Your task to perform on an android device: Open Youtube and go to "Your channel" Image 0: 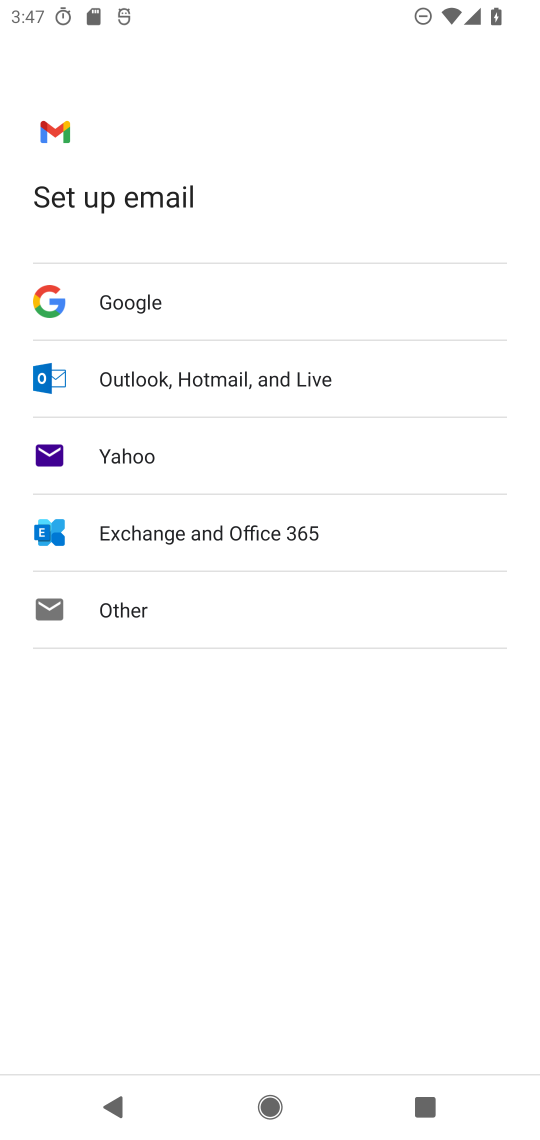
Step 0: press home button
Your task to perform on an android device: Open Youtube and go to "Your channel" Image 1: 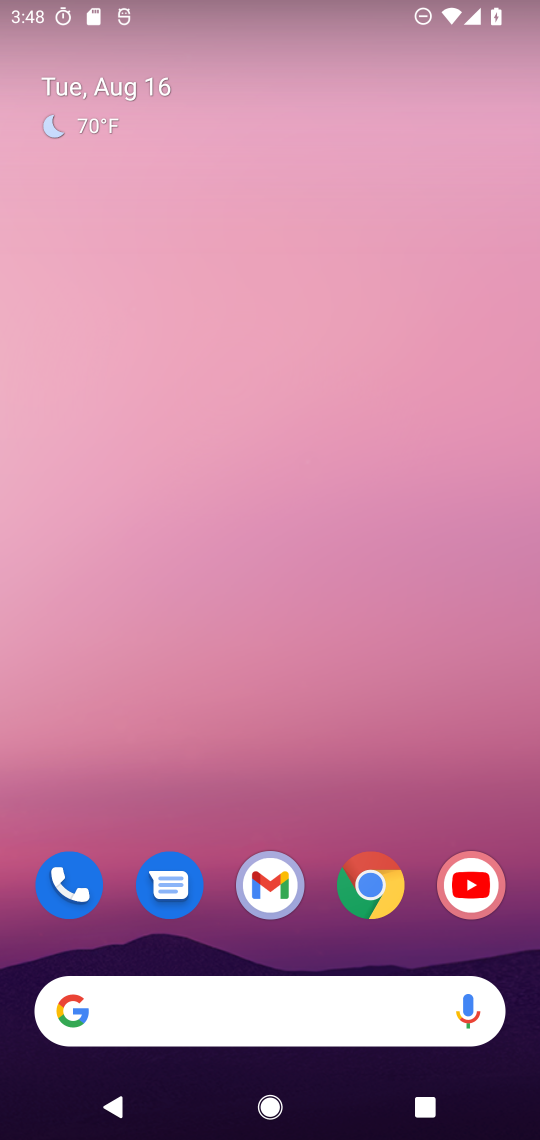
Step 1: drag from (235, 926) to (317, 166)
Your task to perform on an android device: Open Youtube and go to "Your channel" Image 2: 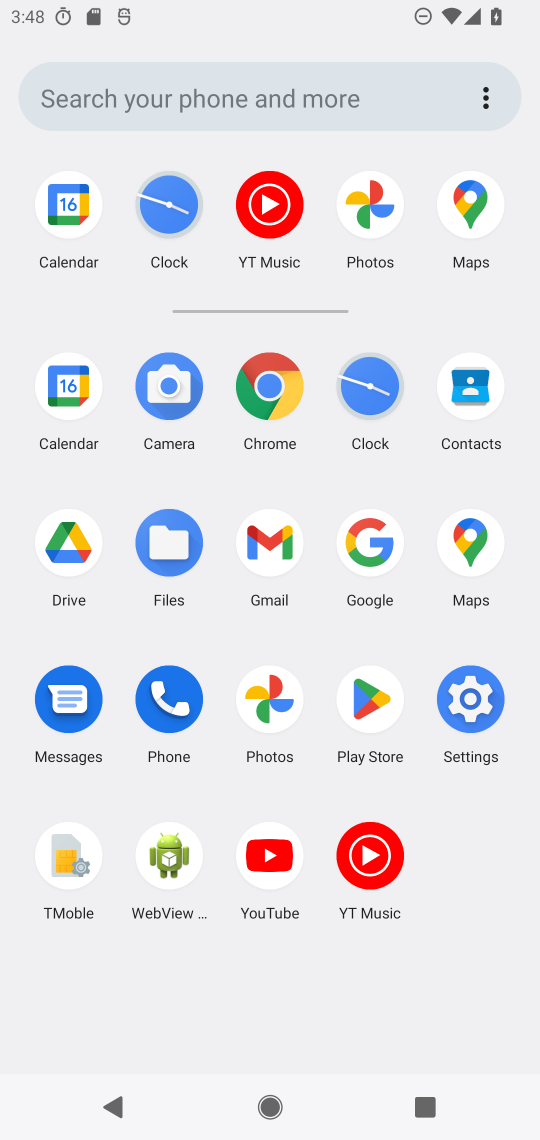
Step 2: click (252, 856)
Your task to perform on an android device: Open Youtube and go to "Your channel" Image 3: 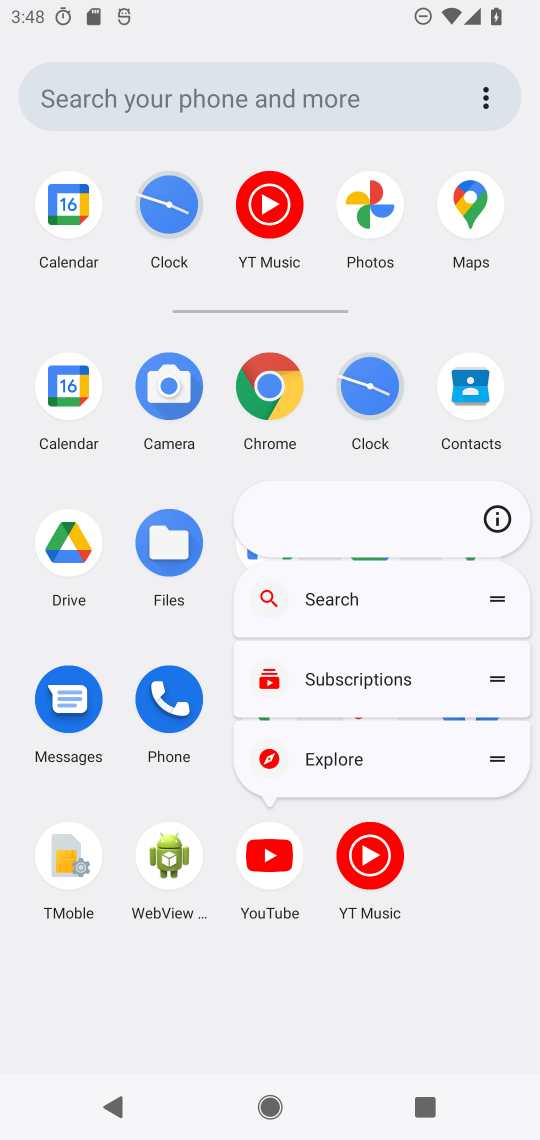
Step 3: click (262, 841)
Your task to perform on an android device: Open Youtube and go to "Your channel" Image 4: 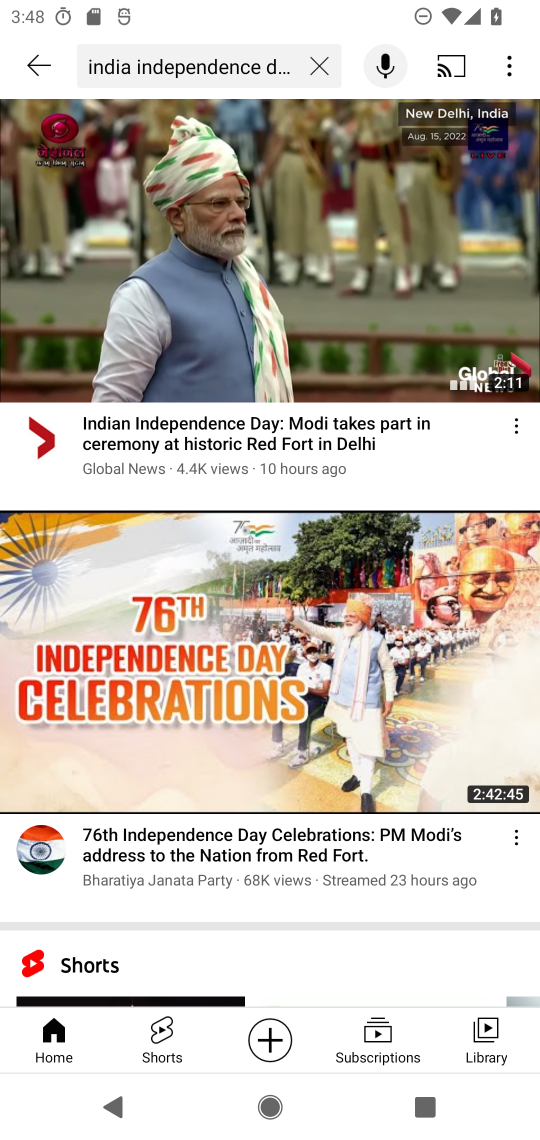
Step 4: click (319, 60)
Your task to perform on an android device: Open Youtube and go to "Your channel" Image 5: 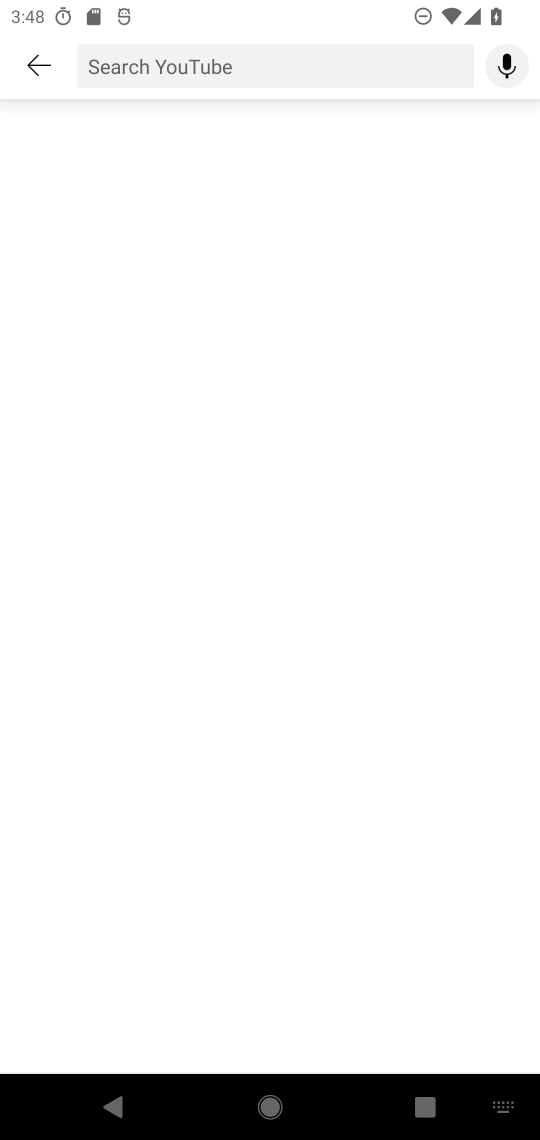
Step 5: click (210, 56)
Your task to perform on an android device: Open Youtube and go to "Your channel" Image 6: 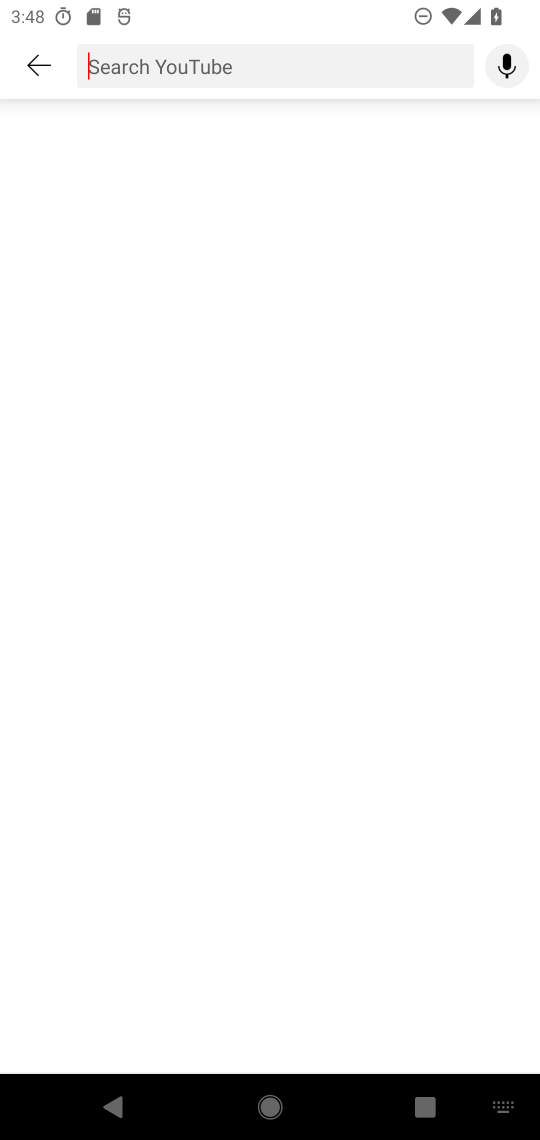
Step 6: type "colour "
Your task to perform on an android device: Open Youtube and go to "Your channel" Image 7: 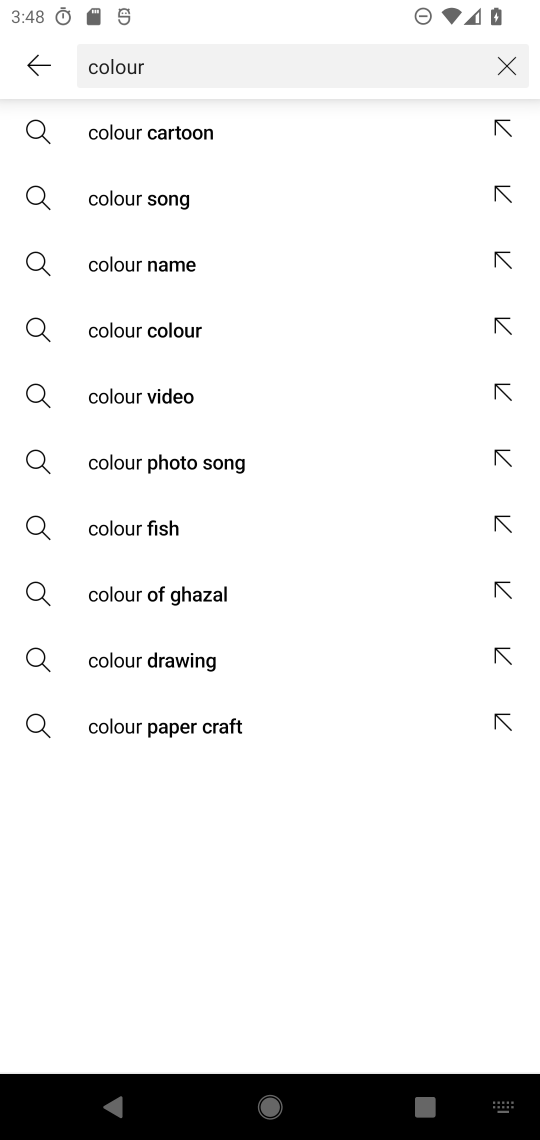
Step 7: click (170, 209)
Your task to perform on an android device: Open Youtube and go to "Your channel" Image 8: 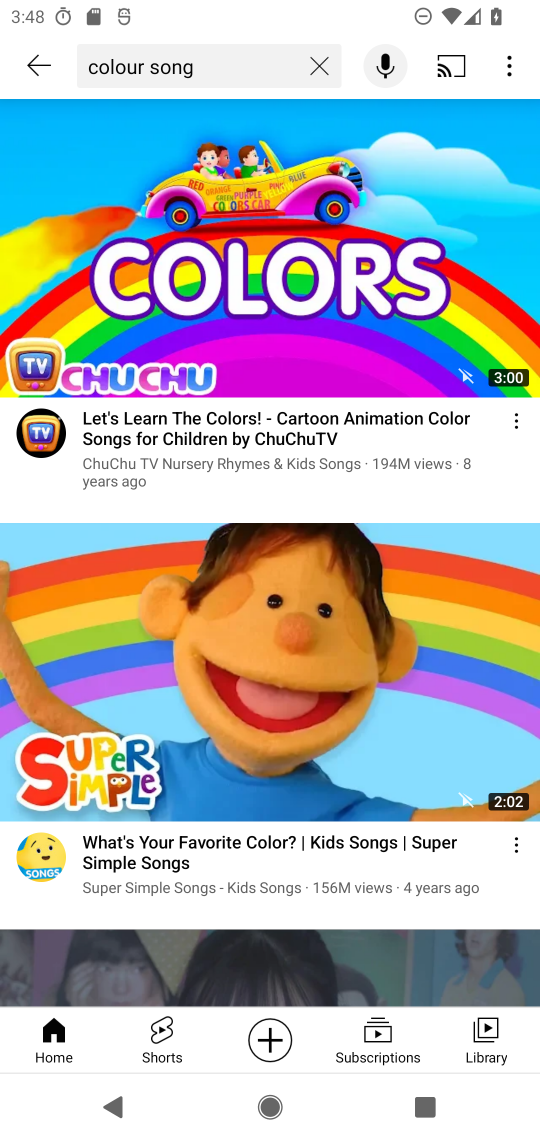
Step 8: task complete